Your task to perform on an android device: open chrome and create a bookmark for the current page Image 0: 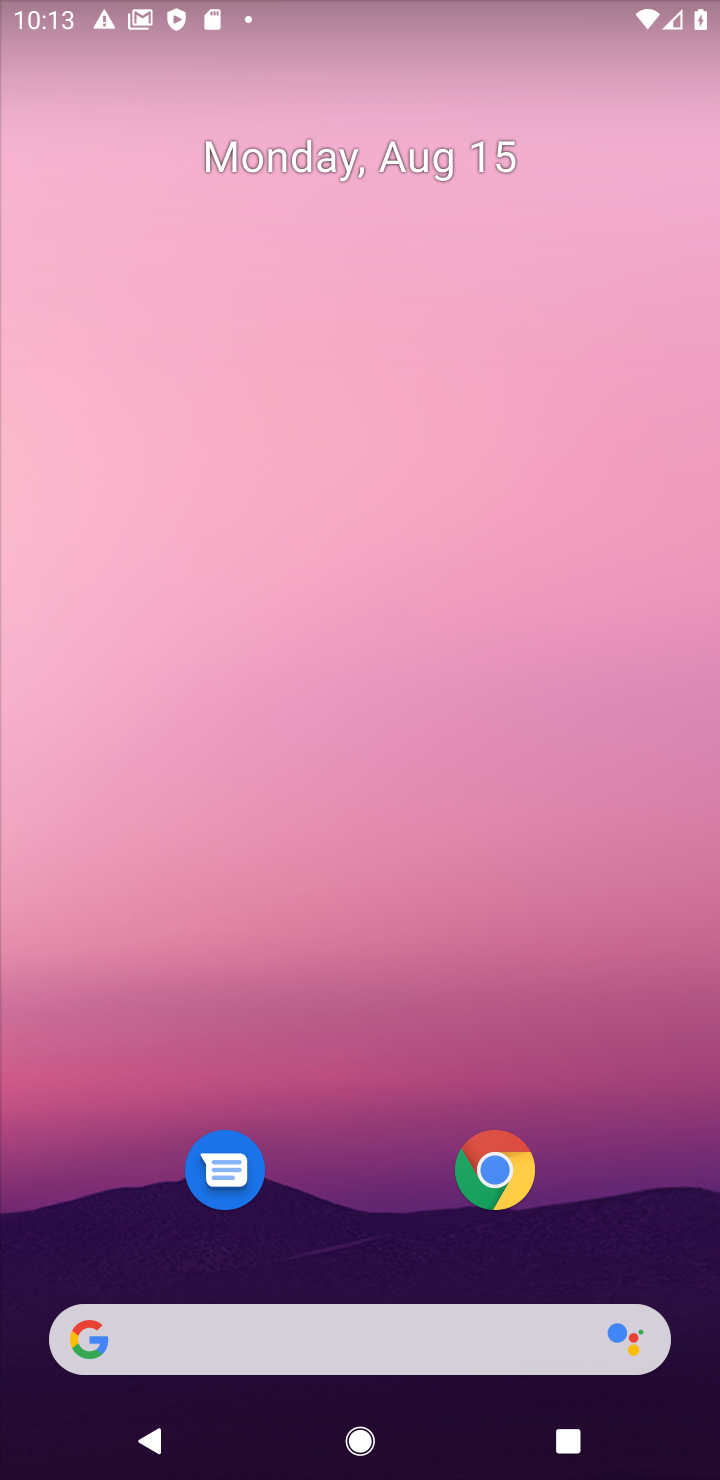
Step 0: click (491, 1172)
Your task to perform on an android device: open chrome and create a bookmark for the current page Image 1: 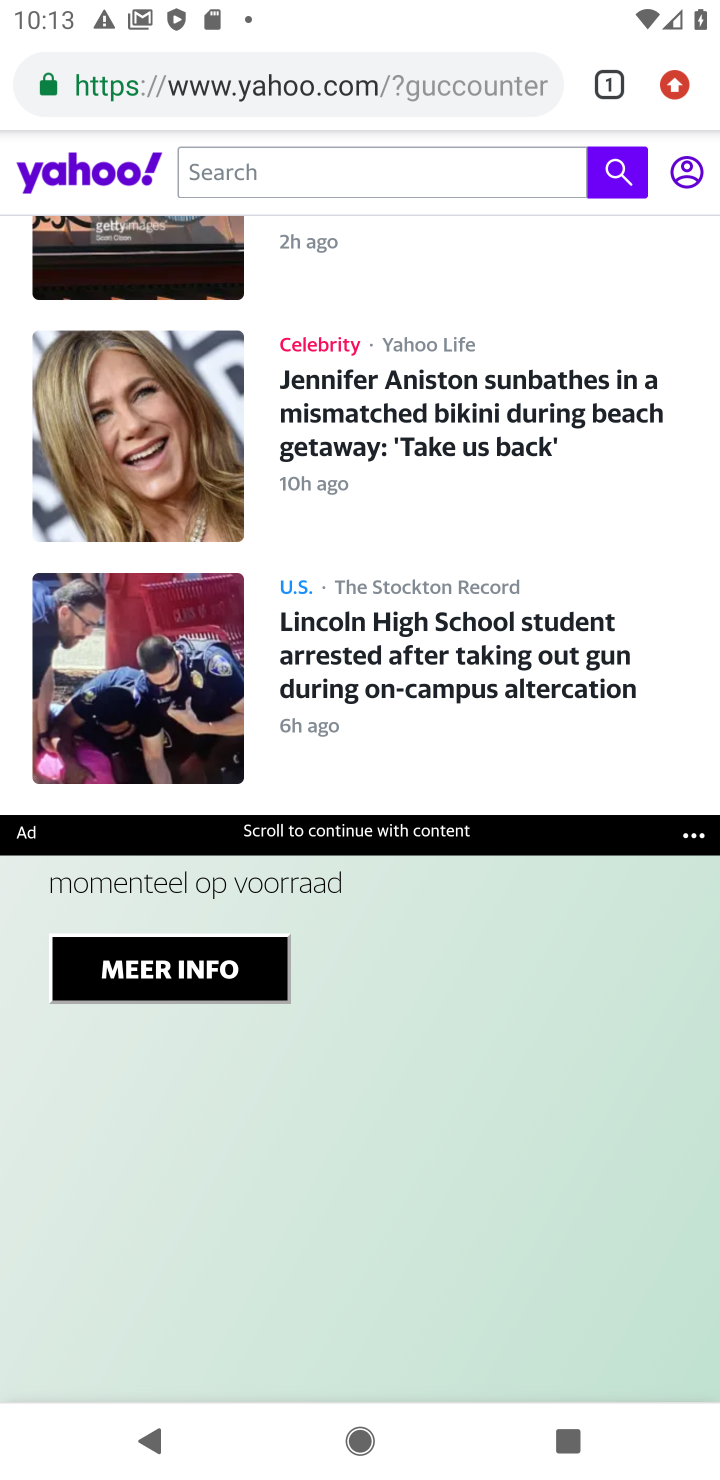
Step 1: click (676, 73)
Your task to perform on an android device: open chrome and create a bookmark for the current page Image 2: 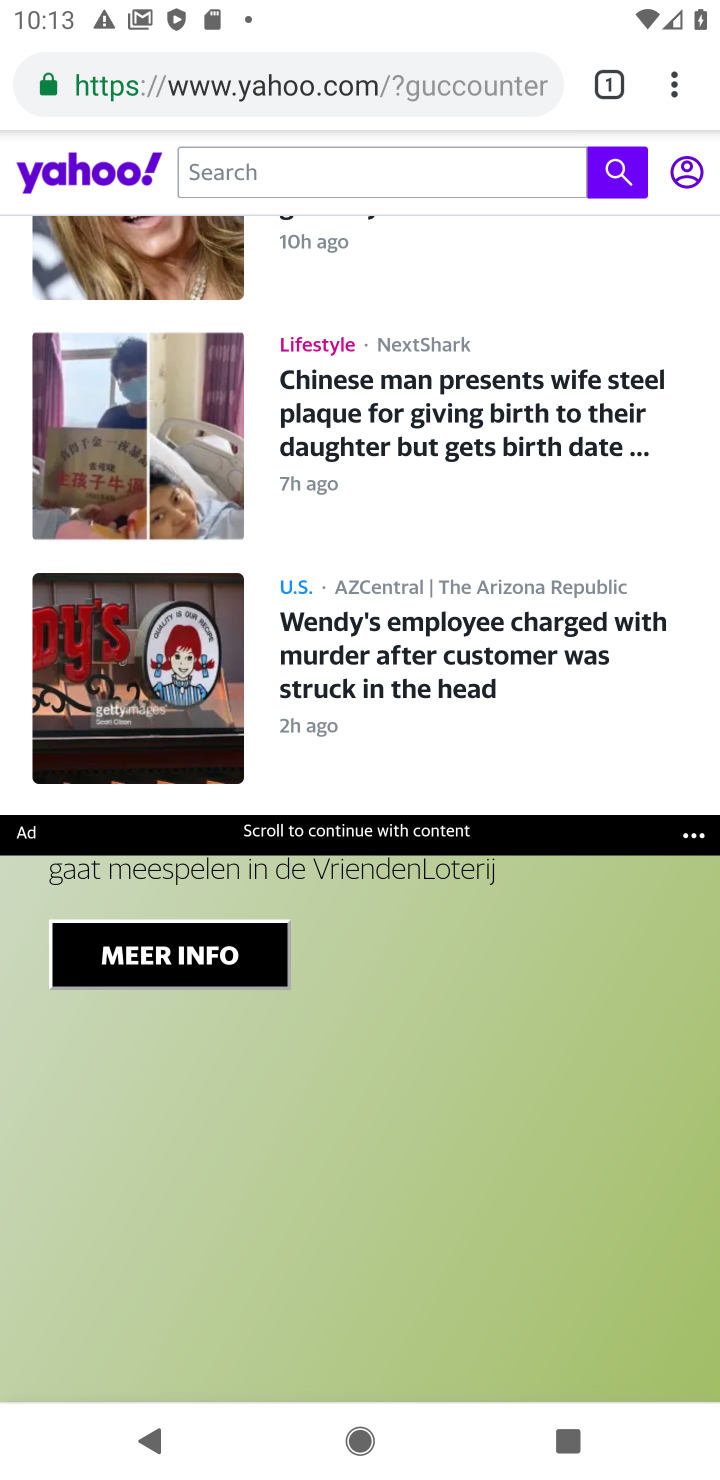
Step 2: click (679, 80)
Your task to perform on an android device: open chrome and create a bookmark for the current page Image 3: 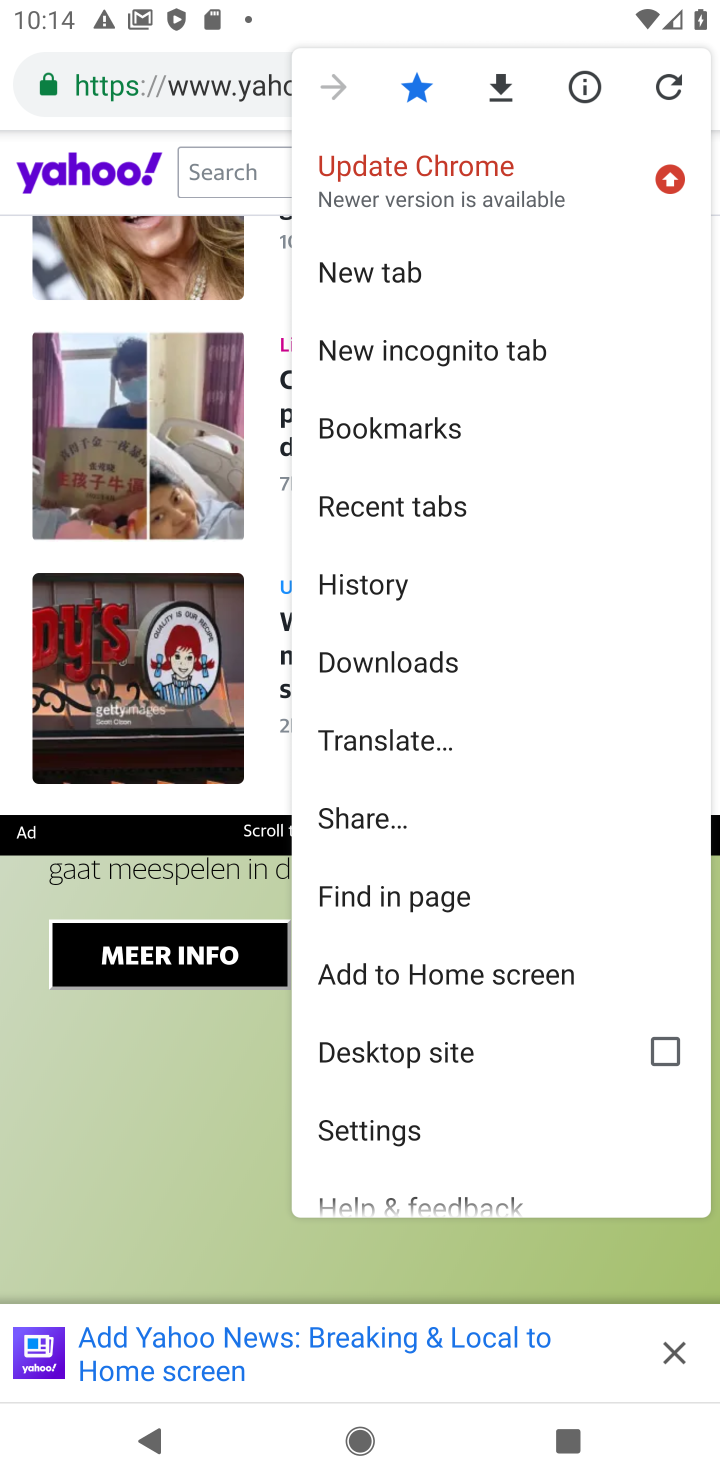
Step 3: task complete